Your task to perform on an android device: change the upload size in google photos Image 0: 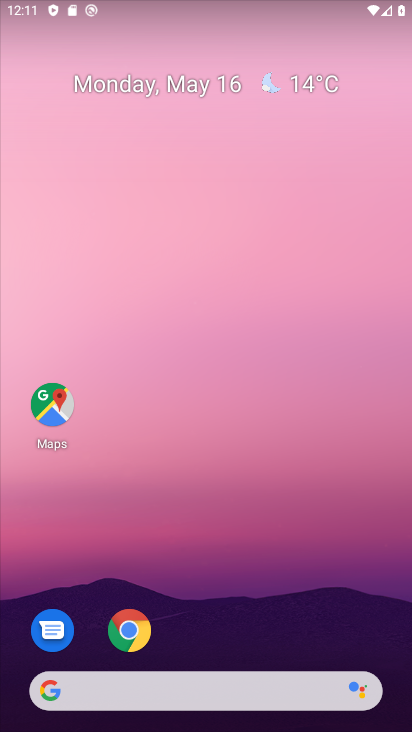
Step 0: drag from (301, 643) to (319, 77)
Your task to perform on an android device: change the upload size in google photos Image 1: 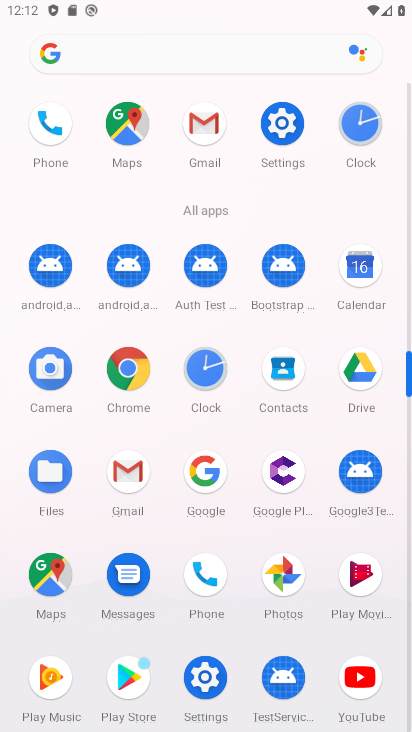
Step 1: click (284, 564)
Your task to perform on an android device: change the upload size in google photos Image 2: 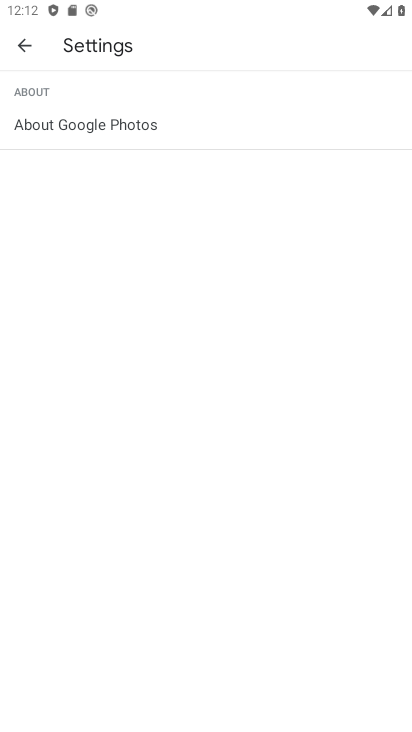
Step 2: click (34, 43)
Your task to perform on an android device: change the upload size in google photos Image 3: 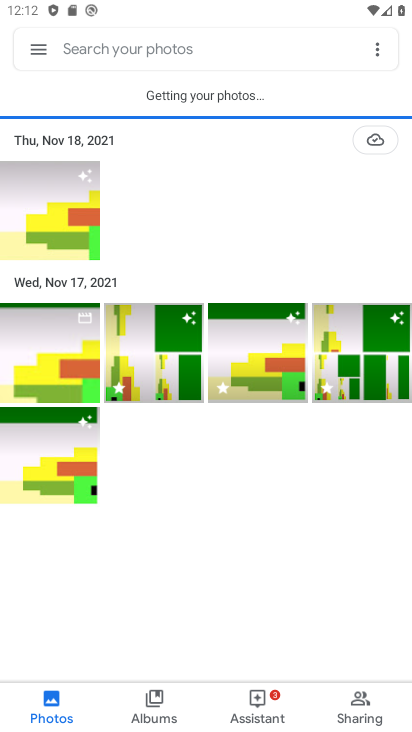
Step 3: click (50, 47)
Your task to perform on an android device: change the upload size in google photos Image 4: 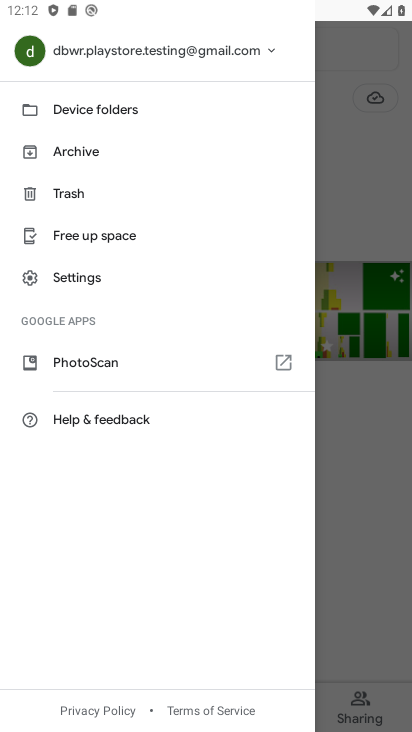
Step 4: click (107, 275)
Your task to perform on an android device: change the upload size in google photos Image 5: 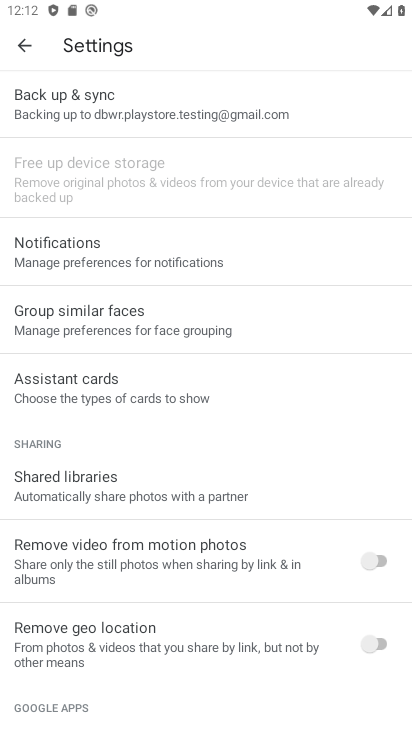
Step 5: click (73, 121)
Your task to perform on an android device: change the upload size in google photos Image 6: 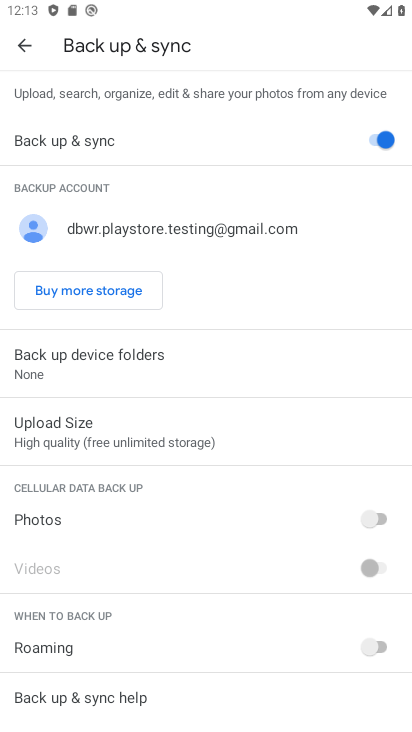
Step 6: click (160, 439)
Your task to perform on an android device: change the upload size in google photos Image 7: 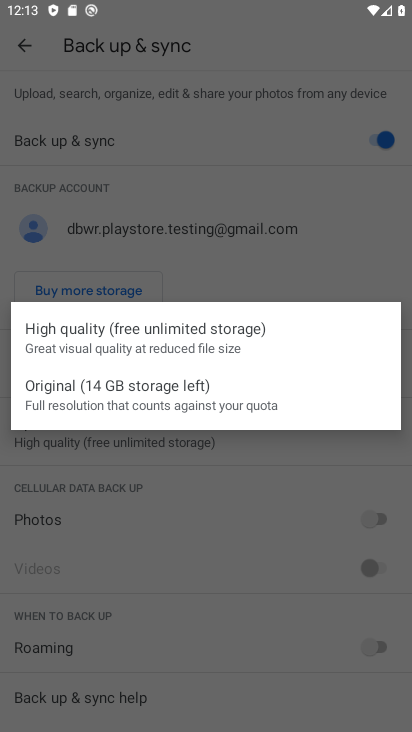
Step 7: click (148, 396)
Your task to perform on an android device: change the upload size in google photos Image 8: 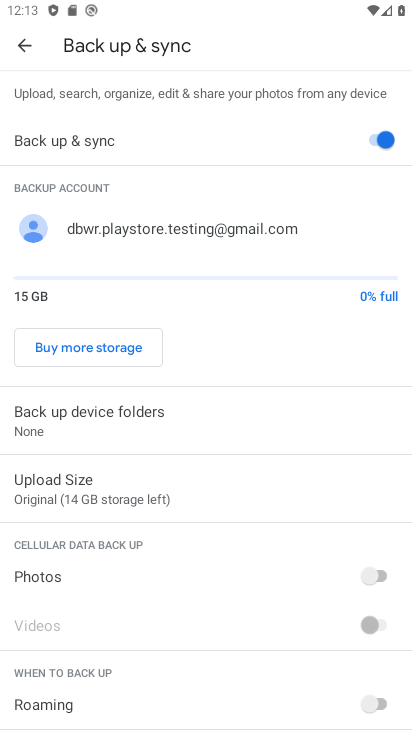
Step 8: task complete